Your task to perform on an android device: Go to location settings Image 0: 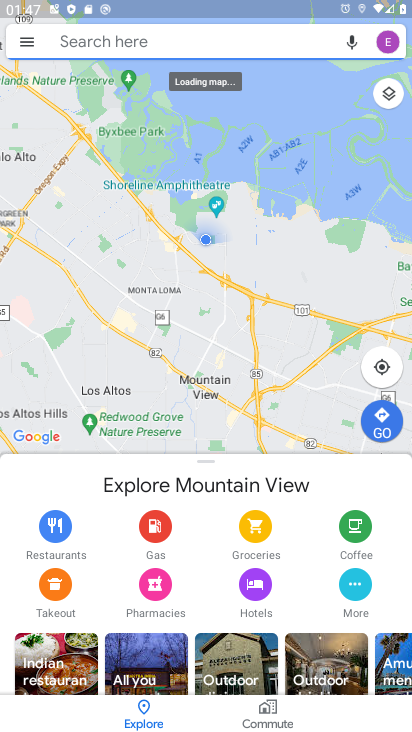
Step 0: press home button
Your task to perform on an android device: Go to location settings Image 1: 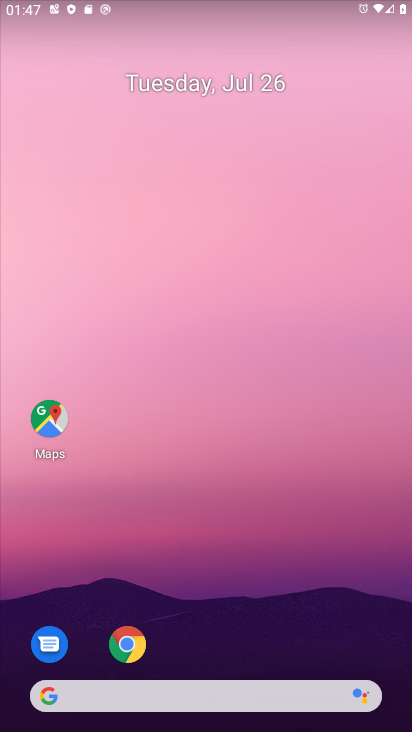
Step 1: drag from (255, 633) to (281, 219)
Your task to perform on an android device: Go to location settings Image 2: 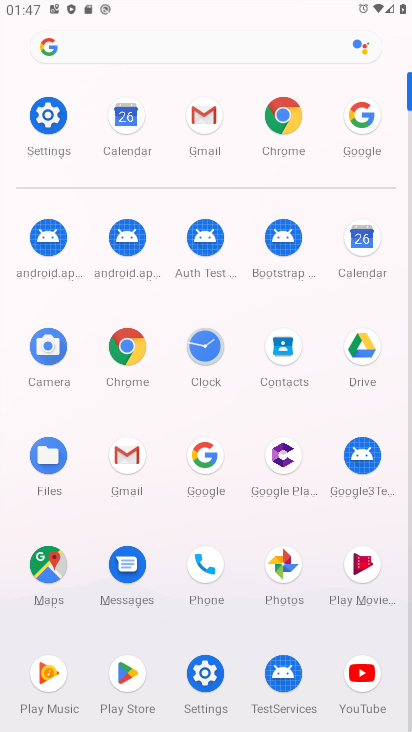
Step 2: click (49, 114)
Your task to perform on an android device: Go to location settings Image 3: 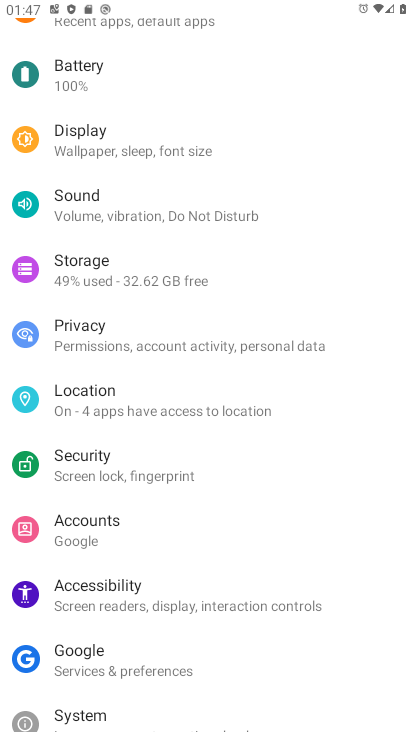
Step 3: click (114, 398)
Your task to perform on an android device: Go to location settings Image 4: 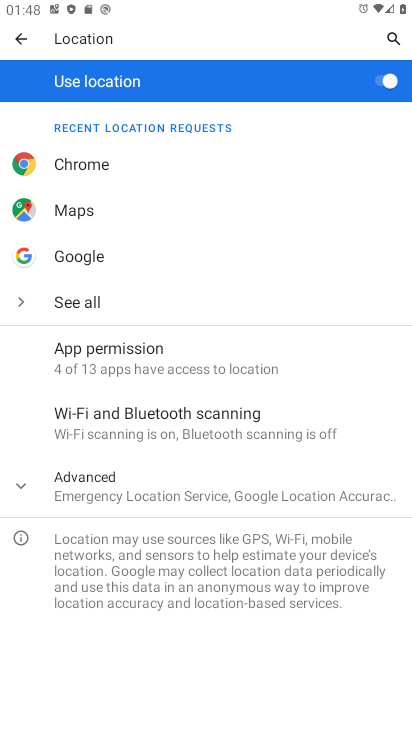
Step 4: task complete